Your task to perform on an android device: check the backup settings in the google photos Image 0: 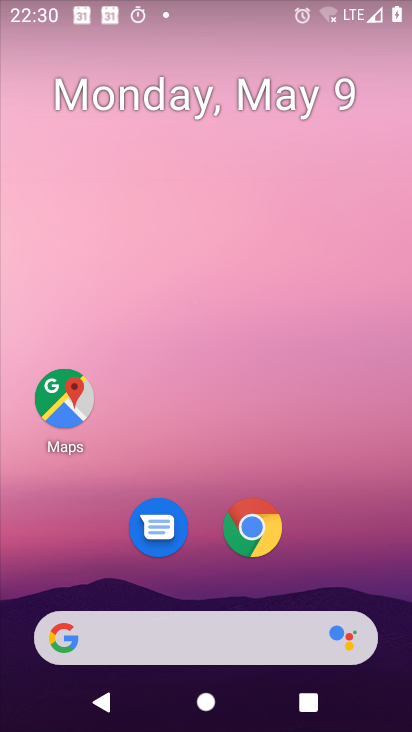
Step 0: drag from (199, 554) to (215, 82)
Your task to perform on an android device: check the backup settings in the google photos Image 1: 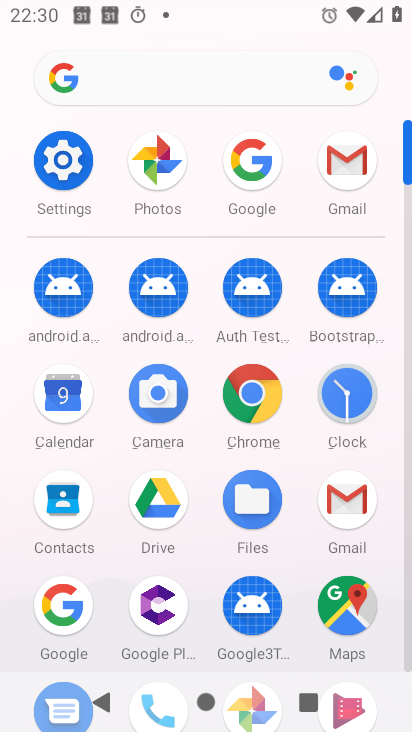
Step 1: click (157, 160)
Your task to perform on an android device: check the backup settings in the google photos Image 2: 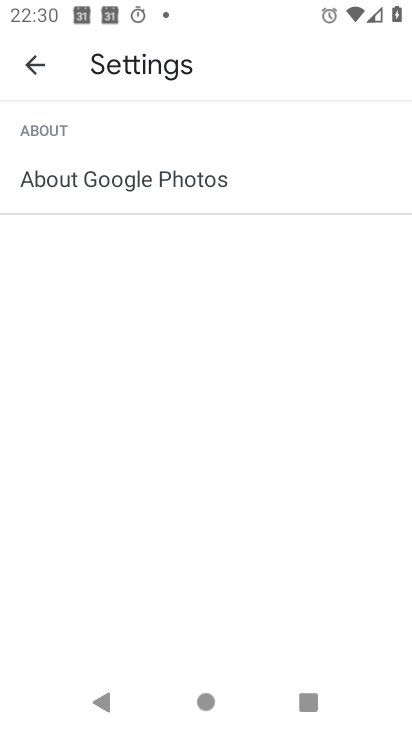
Step 2: press back button
Your task to perform on an android device: check the backup settings in the google photos Image 3: 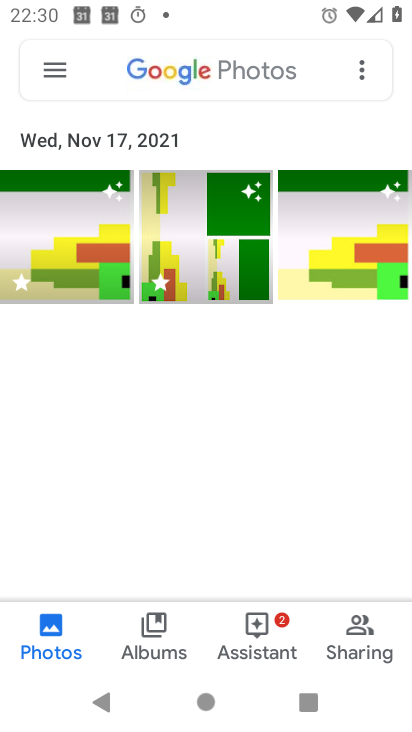
Step 3: click (53, 77)
Your task to perform on an android device: check the backup settings in the google photos Image 4: 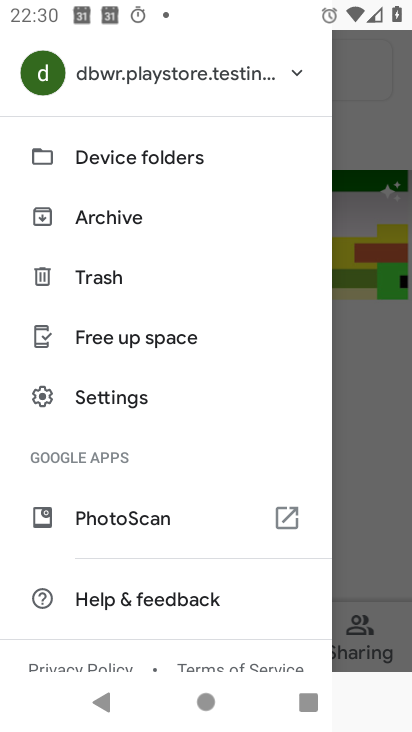
Step 4: click (101, 395)
Your task to perform on an android device: check the backup settings in the google photos Image 5: 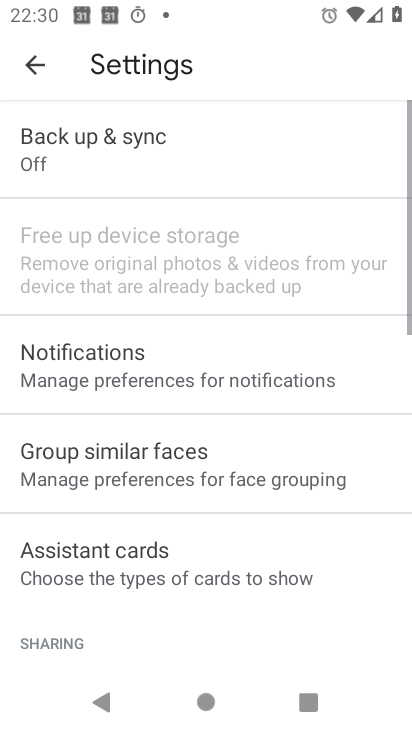
Step 5: click (93, 142)
Your task to perform on an android device: check the backup settings in the google photos Image 6: 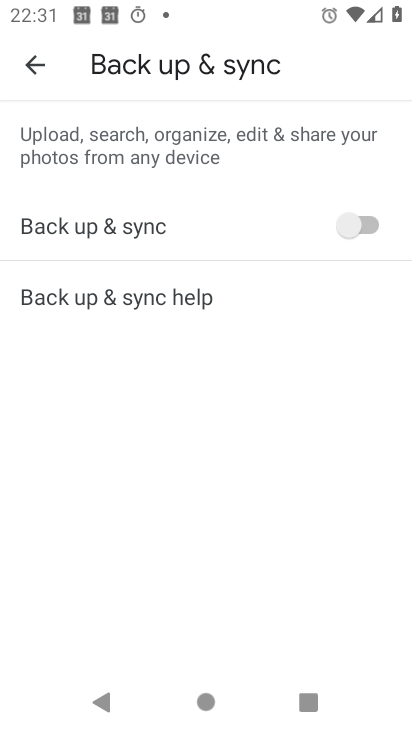
Step 6: task complete